Your task to perform on an android device: snooze an email in the gmail app Image 0: 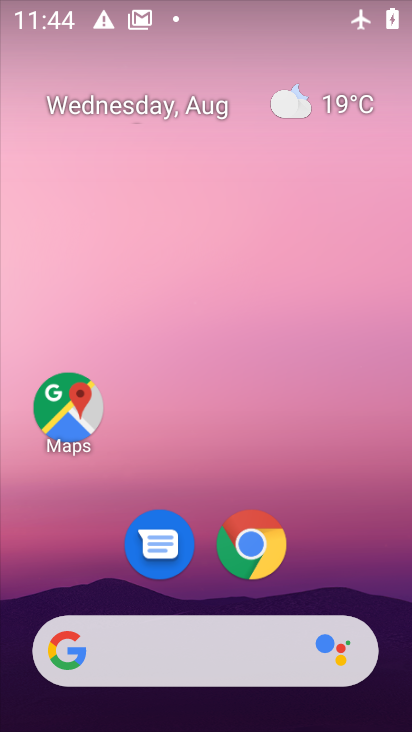
Step 0: drag from (388, 649) to (328, 1)
Your task to perform on an android device: snooze an email in the gmail app Image 1: 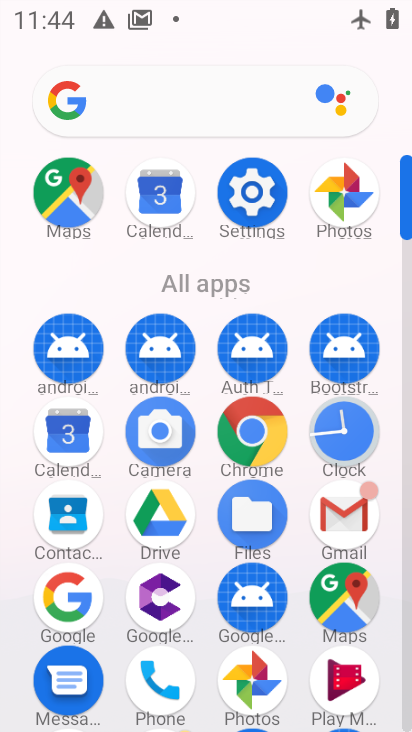
Step 1: click (336, 502)
Your task to perform on an android device: snooze an email in the gmail app Image 2: 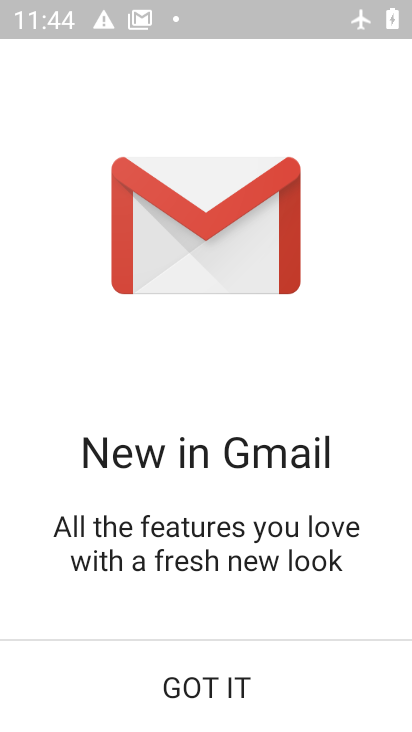
Step 2: click (177, 689)
Your task to perform on an android device: snooze an email in the gmail app Image 3: 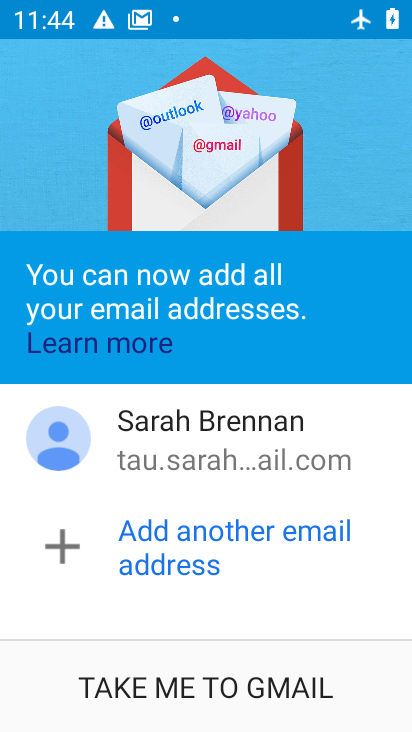
Step 3: click (178, 689)
Your task to perform on an android device: snooze an email in the gmail app Image 4: 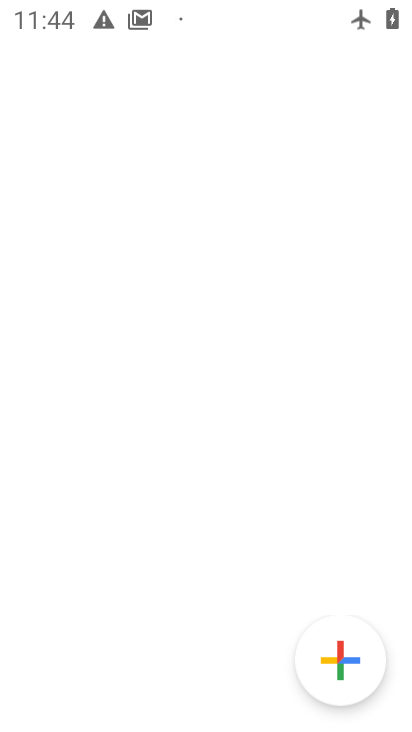
Step 4: click (178, 689)
Your task to perform on an android device: snooze an email in the gmail app Image 5: 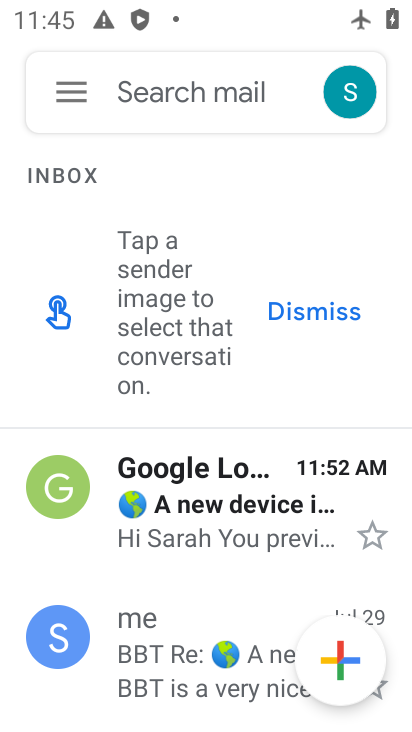
Step 5: click (217, 482)
Your task to perform on an android device: snooze an email in the gmail app Image 6: 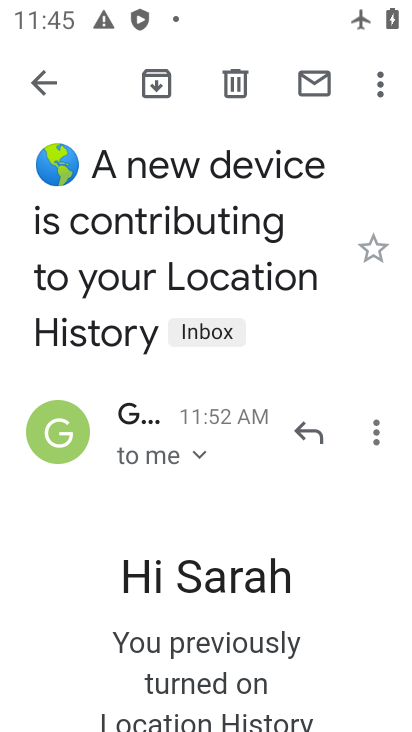
Step 6: click (379, 88)
Your task to perform on an android device: snooze an email in the gmail app Image 7: 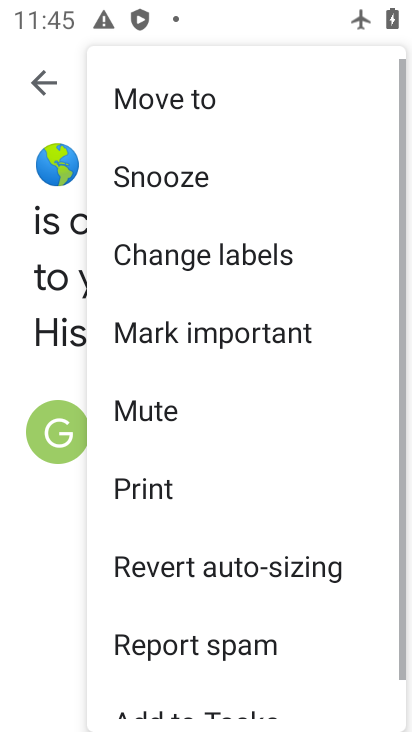
Step 7: click (163, 174)
Your task to perform on an android device: snooze an email in the gmail app Image 8: 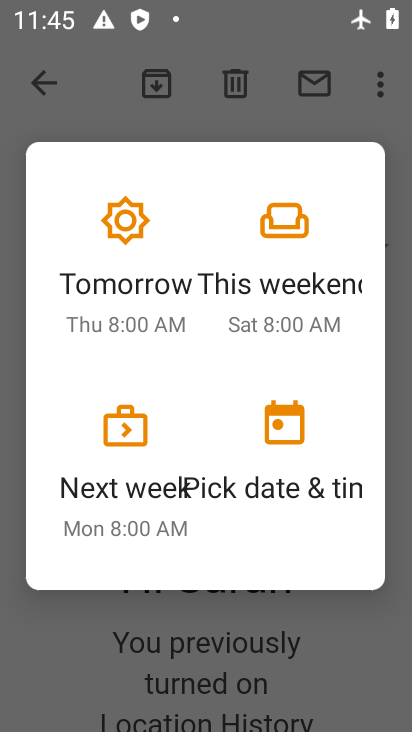
Step 8: click (124, 281)
Your task to perform on an android device: snooze an email in the gmail app Image 9: 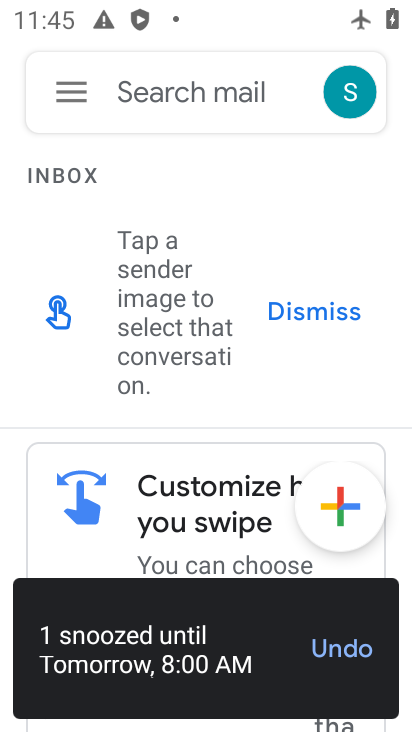
Step 9: task complete